Your task to perform on an android device: delete browsing data in the chrome app Image 0: 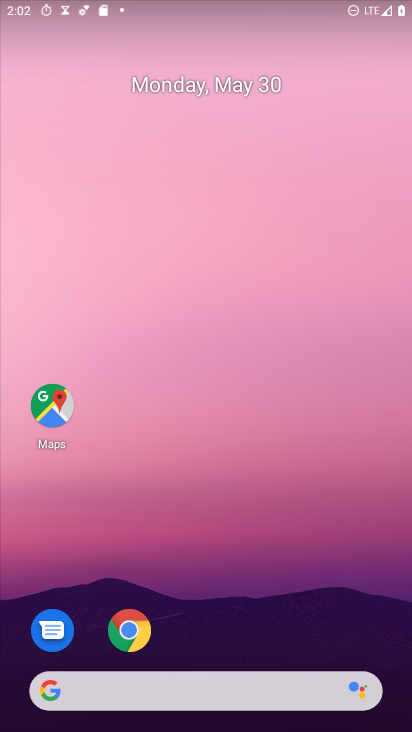
Step 0: drag from (304, 706) to (184, 121)
Your task to perform on an android device: delete browsing data in the chrome app Image 1: 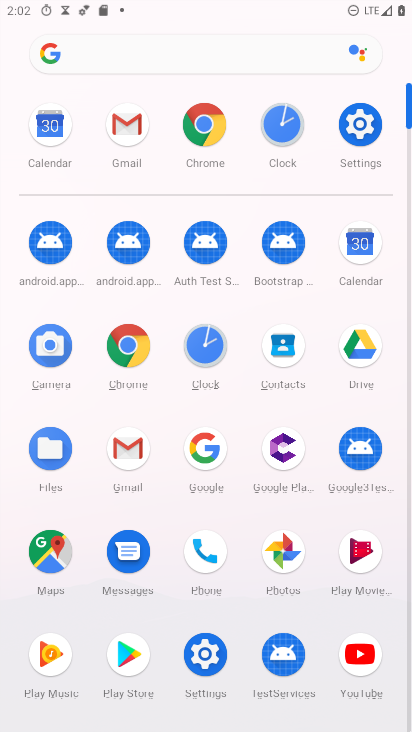
Step 1: click (137, 347)
Your task to perform on an android device: delete browsing data in the chrome app Image 2: 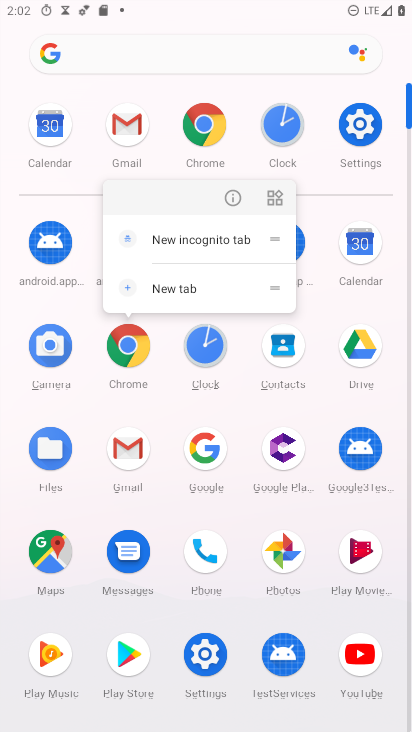
Step 2: click (119, 361)
Your task to perform on an android device: delete browsing data in the chrome app Image 3: 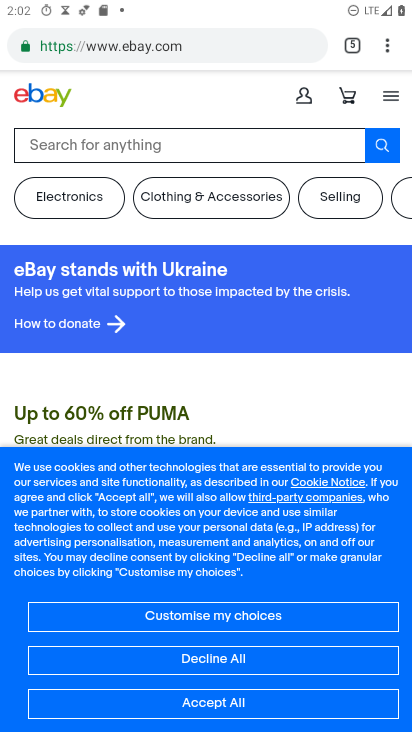
Step 3: click (382, 49)
Your task to perform on an android device: delete browsing data in the chrome app Image 4: 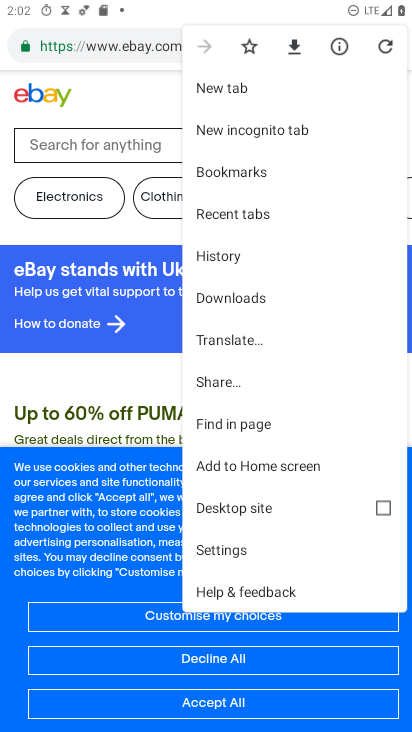
Step 4: click (215, 547)
Your task to perform on an android device: delete browsing data in the chrome app Image 5: 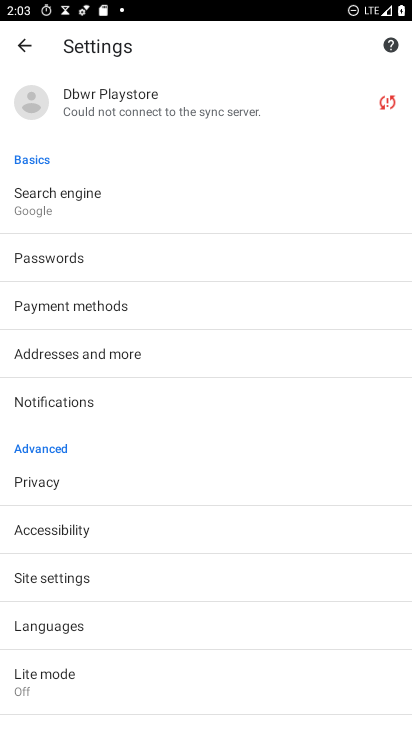
Step 5: click (109, 216)
Your task to perform on an android device: delete browsing data in the chrome app Image 6: 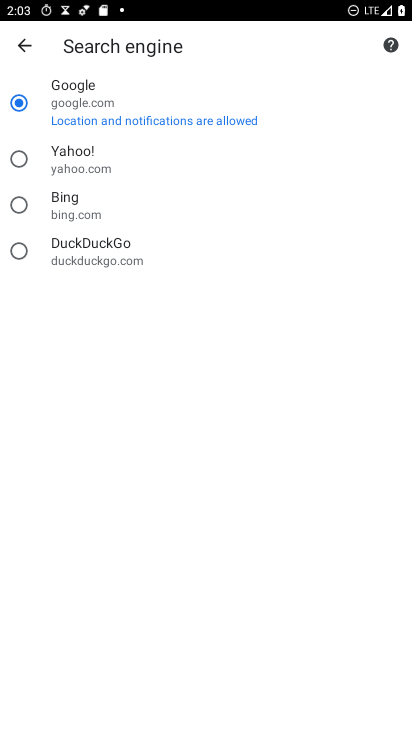
Step 6: click (46, 50)
Your task to perform on an android device: delete browsing data in the chrome app Image 7: 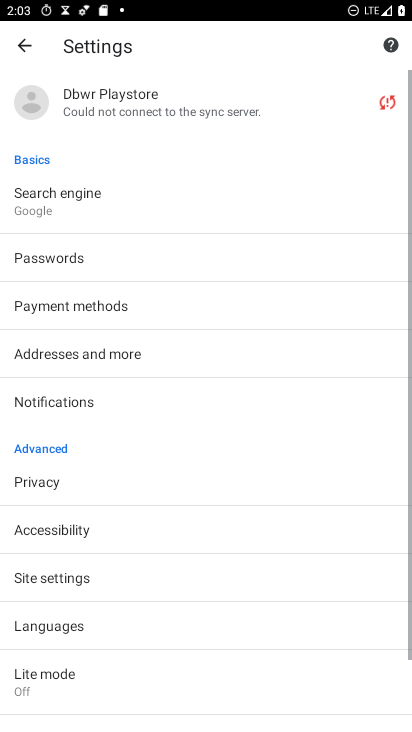
Step 7: click (46, 51)
Your task to perform on an android device: delete browsing data in the chrome app Image 8: 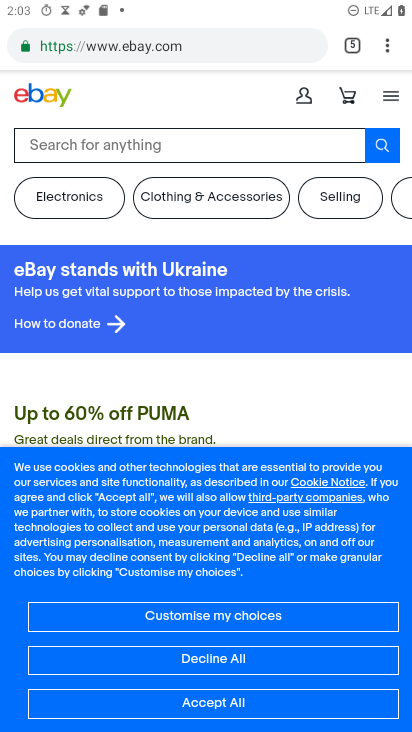
Step 8: click (170, 60)
Your task to perform on an android device: delete browsing data in the chrome app Image 9: 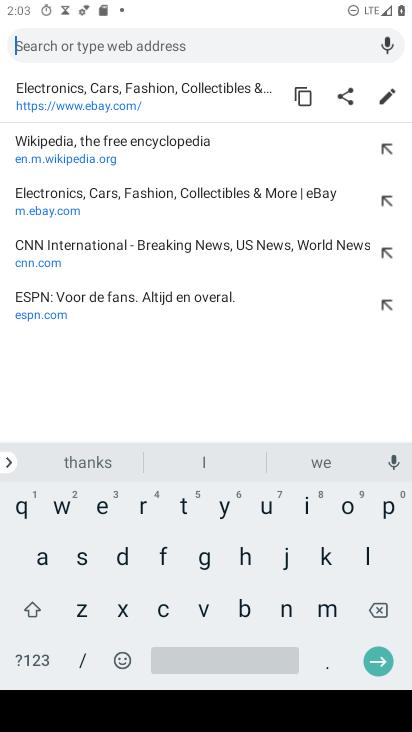
Step 9: task complete